Your task to perform on an android device: Show me popular videos on Youtube Image 0: 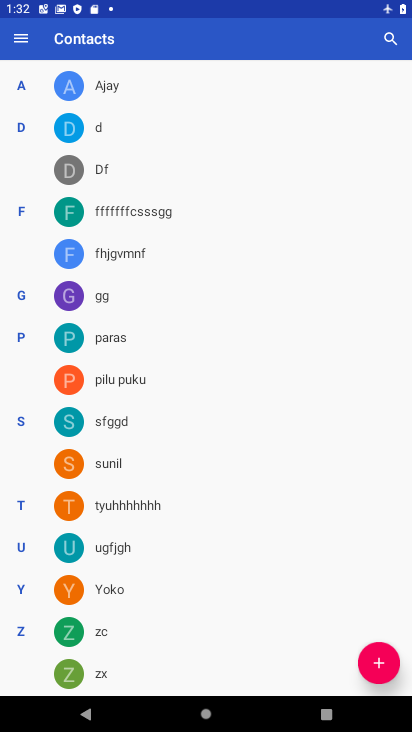
Step 0: press home button
Your task to perform on an android device: Show me popular videos on Youtube Image 1: 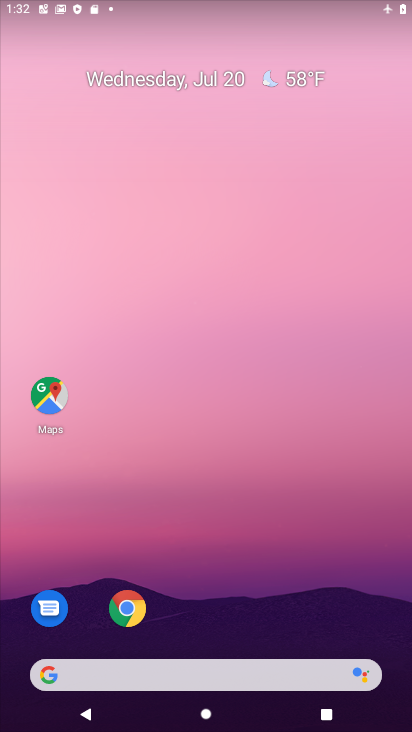
Step 1: drag from (225, 724) to (227, 93)
Your task to perform on an android device: Show me popular videos on Youtube Image 2: 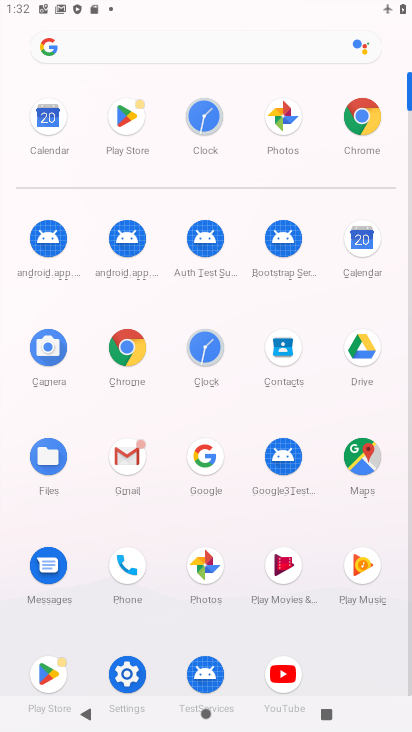
Step 2: click (45, 678)
Your task to perform on an android device: Show me popular videos on Youtube Image 3: 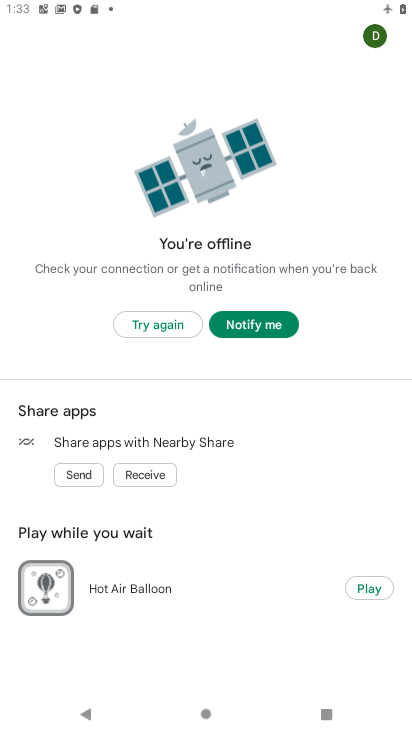
Step 3: task complete